Your task to perform on an android device: Open Google Chrome and click the shortcut for Amazon.com Image 0: 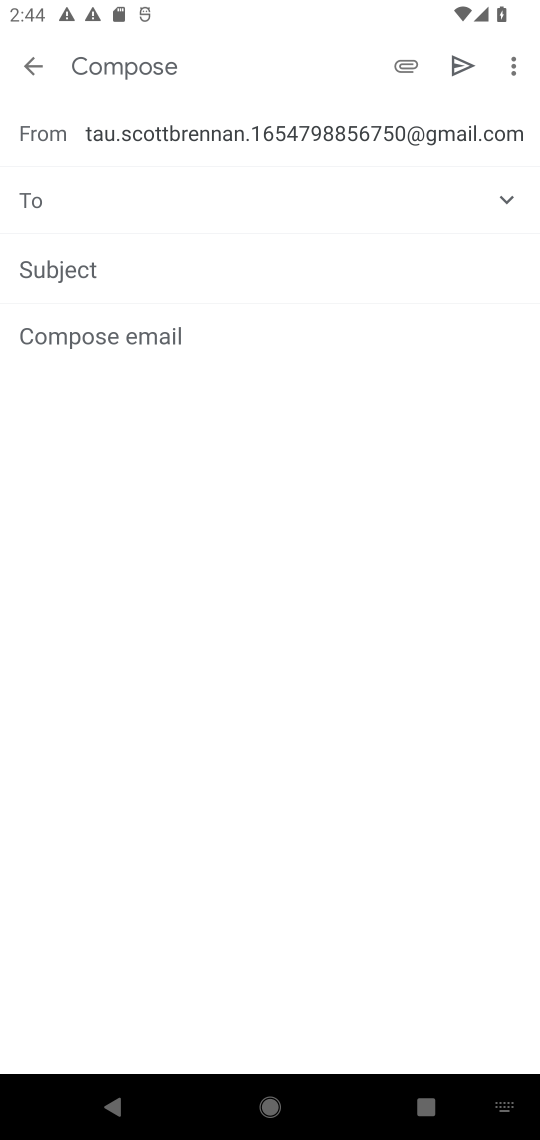
Step 0: press home button
Your task to perform on an android device: Open Google Chrome and click the shortcut for Amazon.com Image 1: 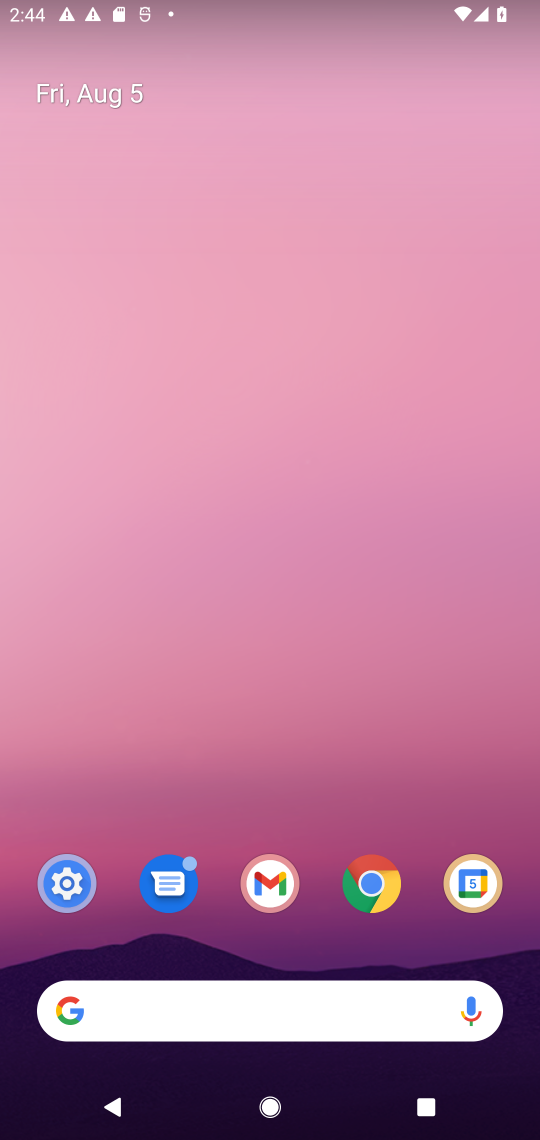
Step 1: click (369, 871)
Your task to perform on an android device: Open Google Chrome and click the shortcut for Amazon.com Image 2: 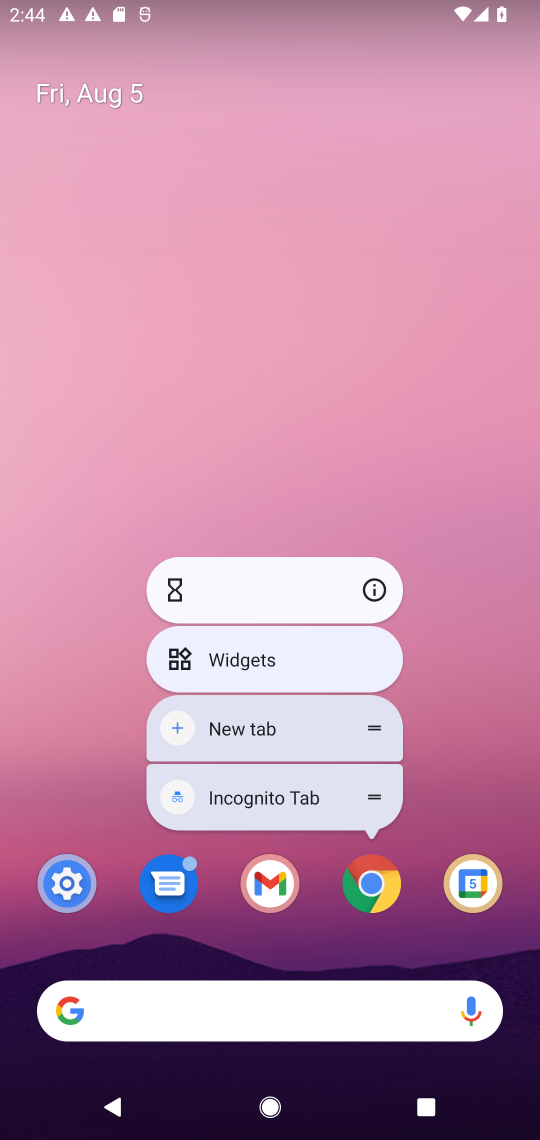
Step 2: click (371, 876)
Your task to perform on an android device: Open Google Chrome and click the shortcut for Amazon.com Image 3: 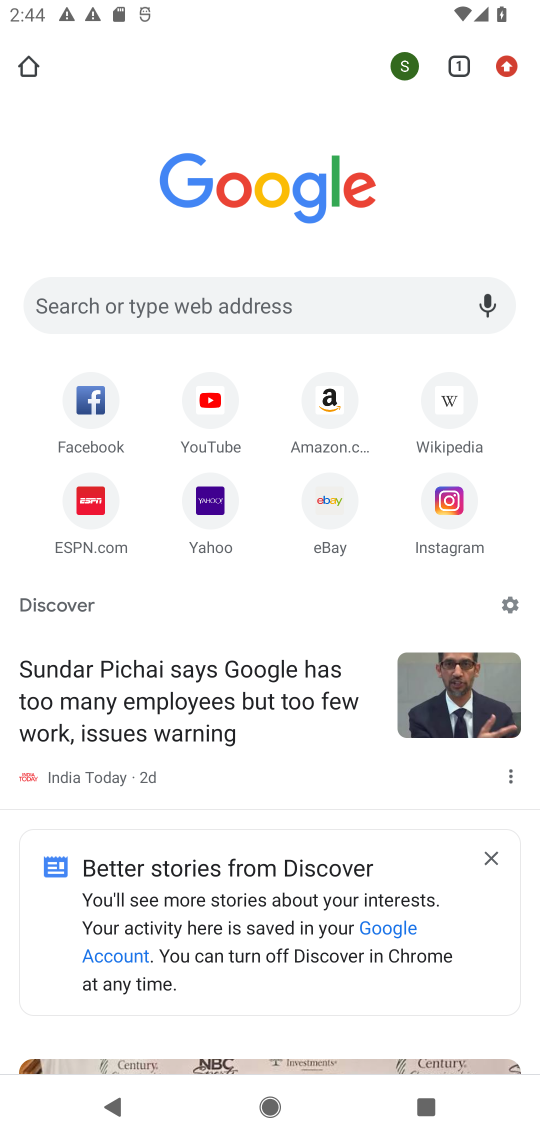
Step 3: click (325, 386)
Your task to perform on an android device: Open Google Chrome and click the shortcut for Amazon.com Image 4: 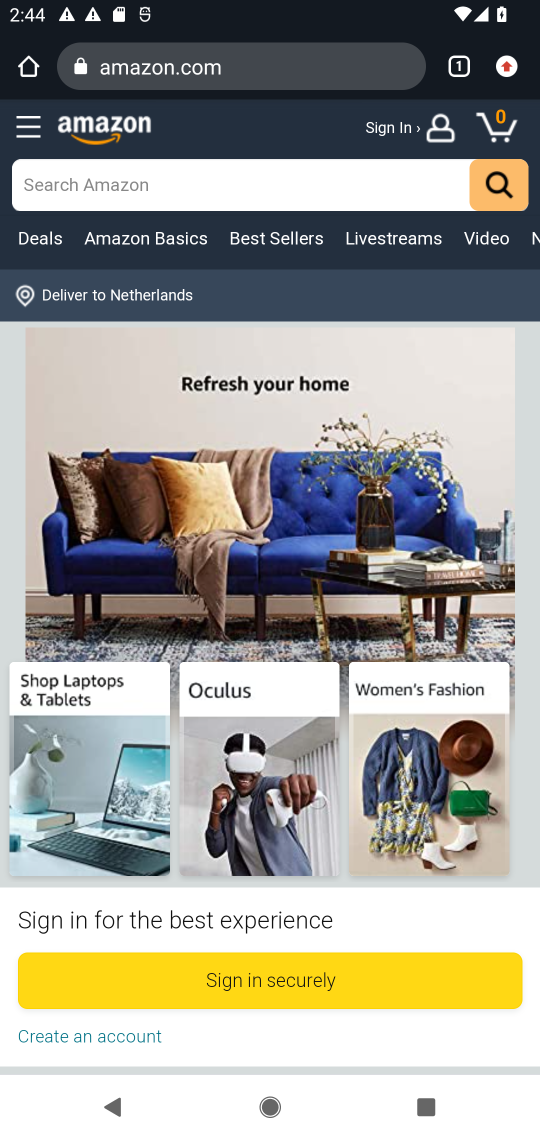
Step 4: task complete